Your task to perform on an android device: install app "Pluto TV - Live TV and Movies" Image 0: 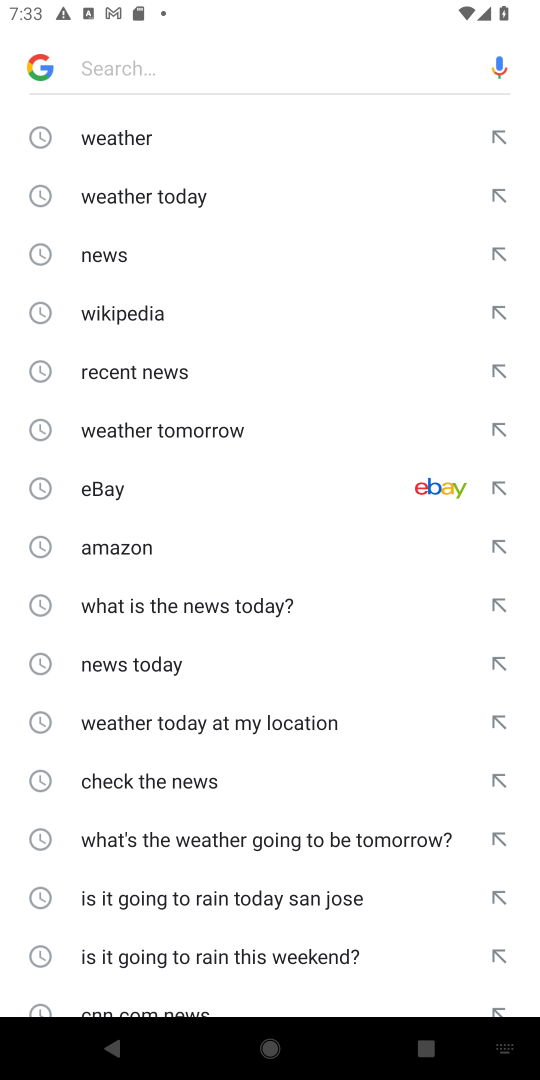
Step 0: press home button
Your task to perform on an android device: install app "Pluto TV - Live TV and Movies" Image 1: 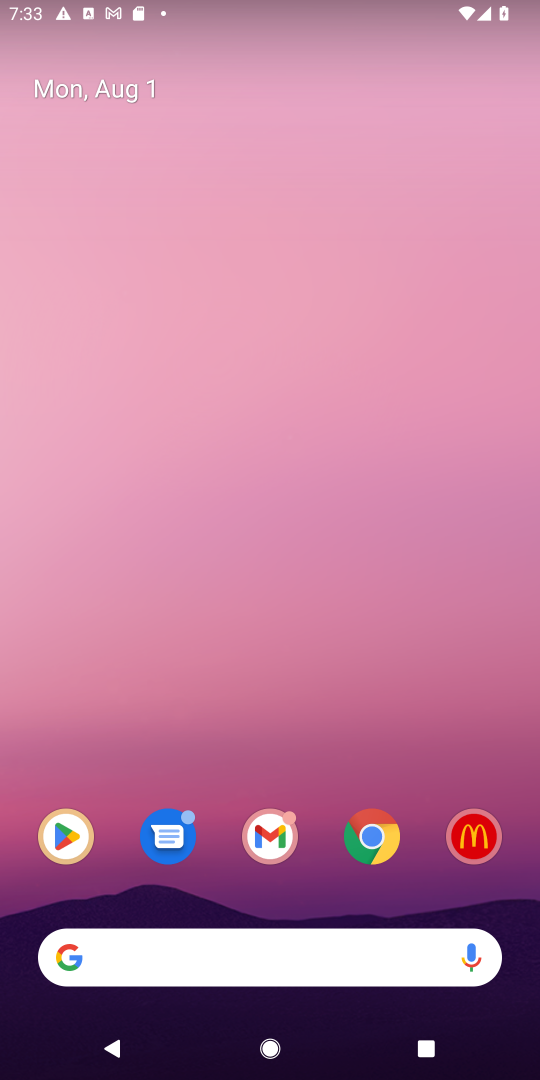
Step 1: click (76, 838)
Your task to perform on an android device: install app "Pluto TV - Live TV and Movies" Image 2: 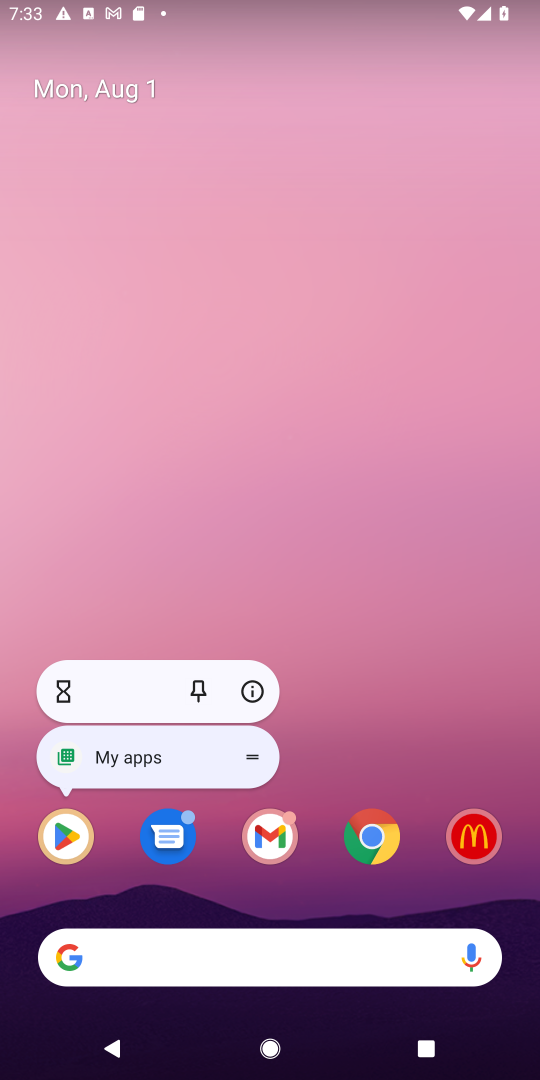
Step 2: click (68, 841)
Your task to perform on an android device: install app "Pluto TV - Live TV and Movies" Image 3: 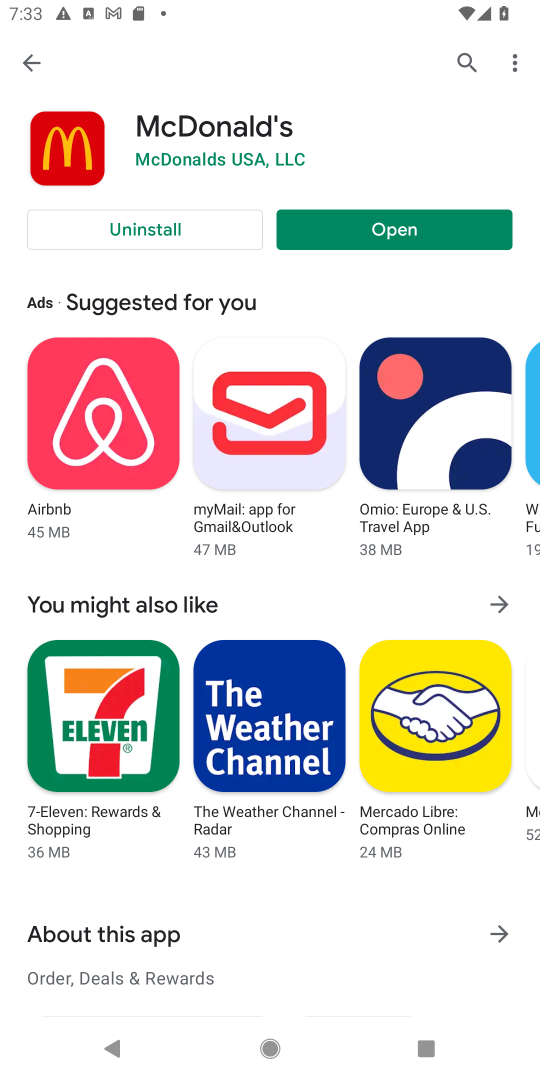
Step 3: click (459, 56)
Your task to perform on an android device: install app "Pluto TV - Live TV and Movies" Image 4: 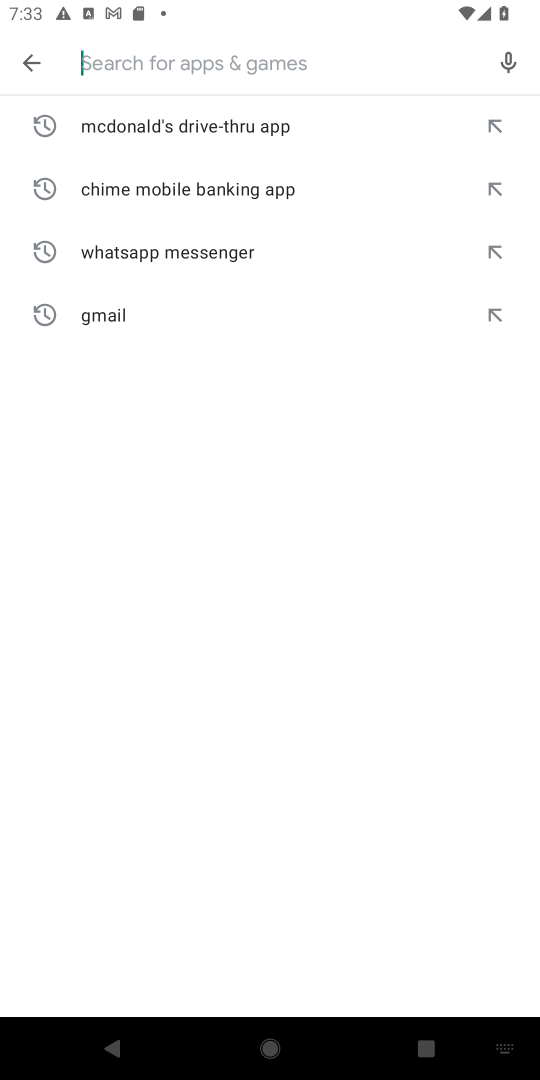
Step 4: type "Pluto TV - Live TV and Movies"
Your task to perform on an android device: install app "Pluto TV - Live TV and Movies" Image 5: 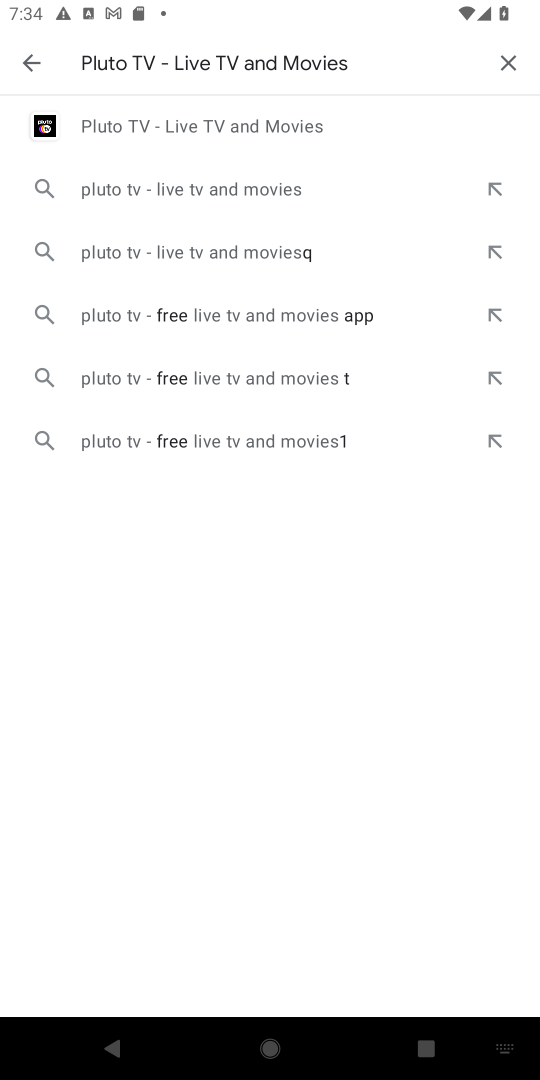
Step 5: click (236, 121)
Your task to perform on an android device: install app "Pluto TV - Live TV and Movies" Image 6: 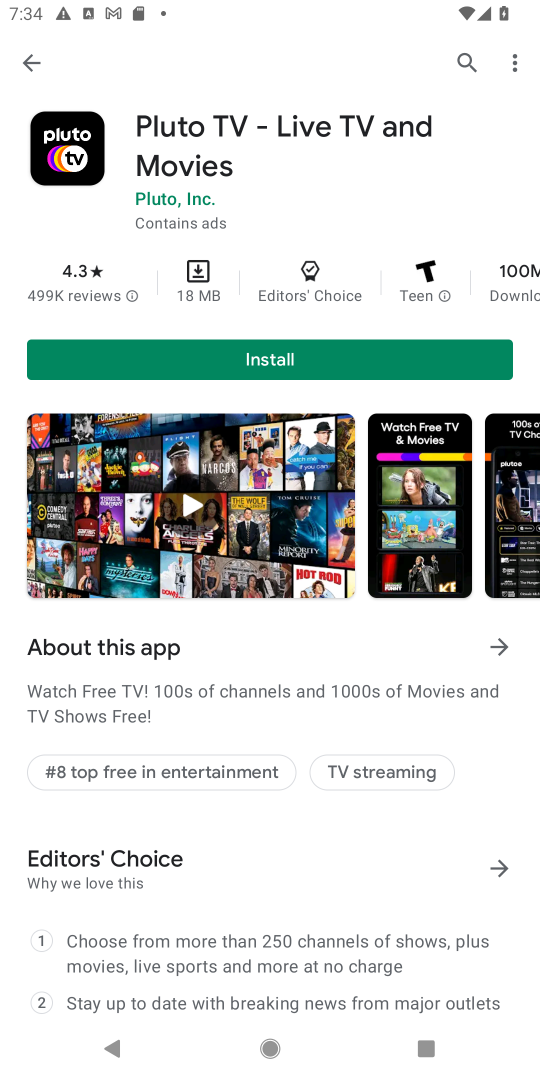
Step 6: click (291, 363)
Your task to perform on an android device: install app "Pluto TV - Live TV and Movies" Image 7: 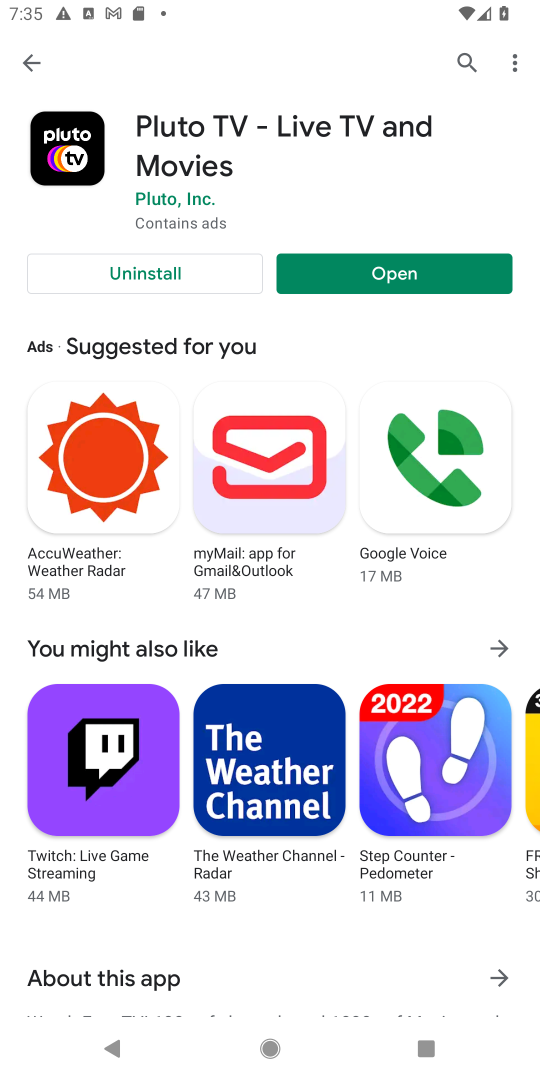
Step 7: task complete